Your task to perform on an android device: turn on wifi Image 0: 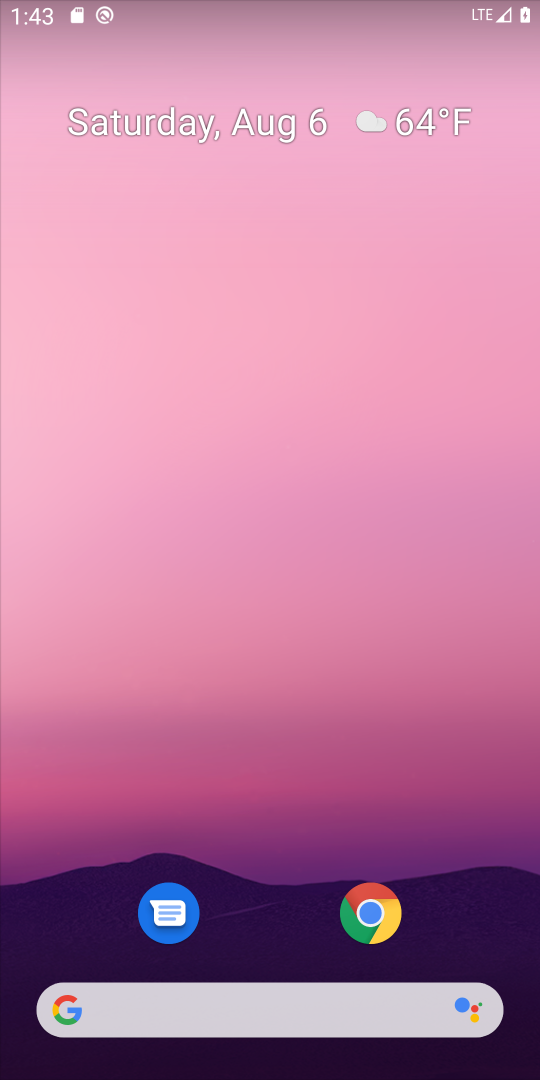
Step 0: press home button
Your task to perform on an android device: turn on wifi Image 1: 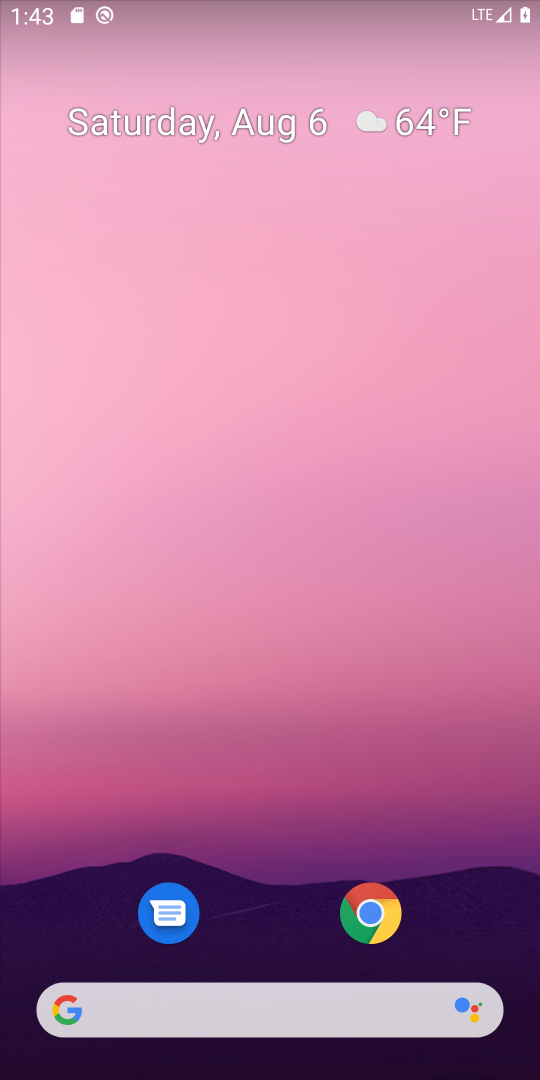
Step 1: drag from (448, 920) to (471, 277)
Your task to perform on an android device: turn on wifi Image 2: 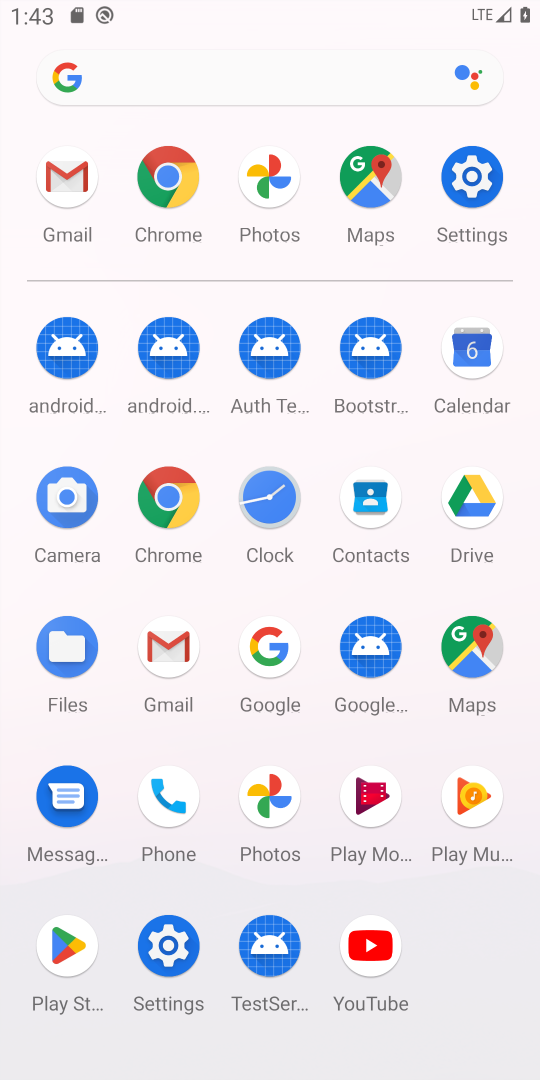
Step 2: click (474, 182)
Your task to perform on an android device: turn on wifi Image 3: 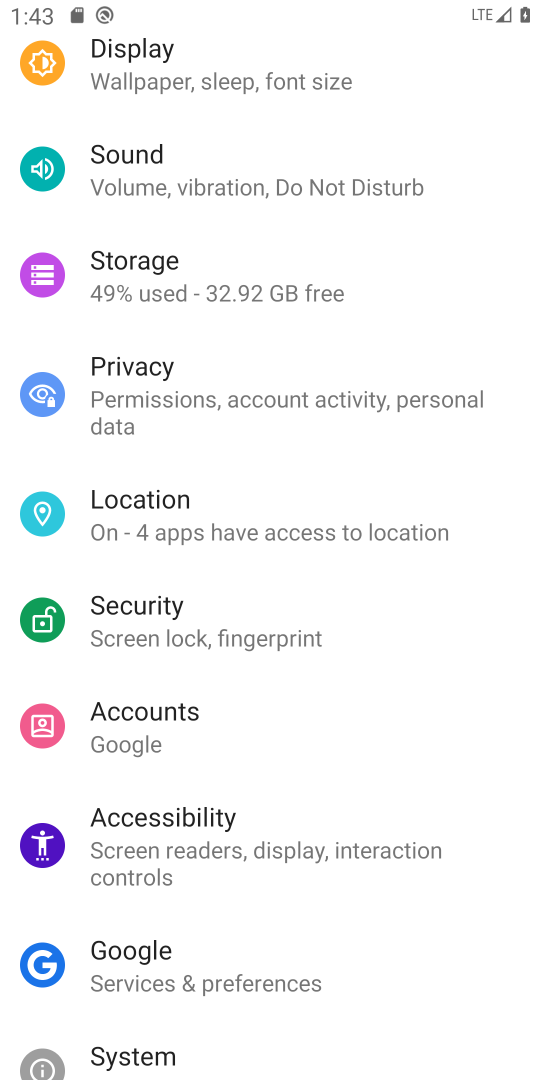
Step 3: drag from (455, 674) to (471, 530)
Your task to perform on an android device: turn on wifi Image 4: 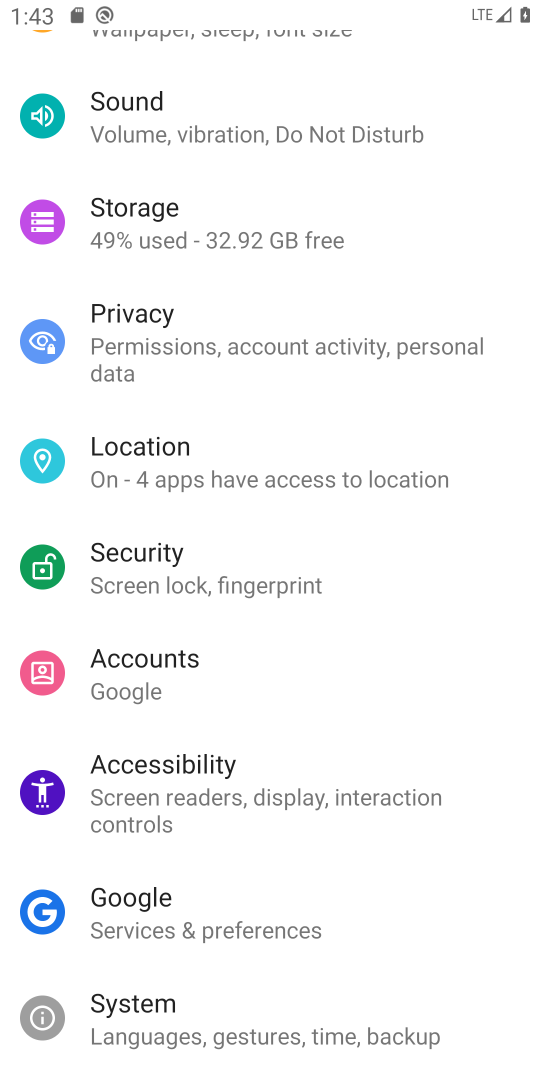
Step 4: drag from (446, 761) to (465, 561)
Your task to perform on an android device: turn on wifi Image 5: 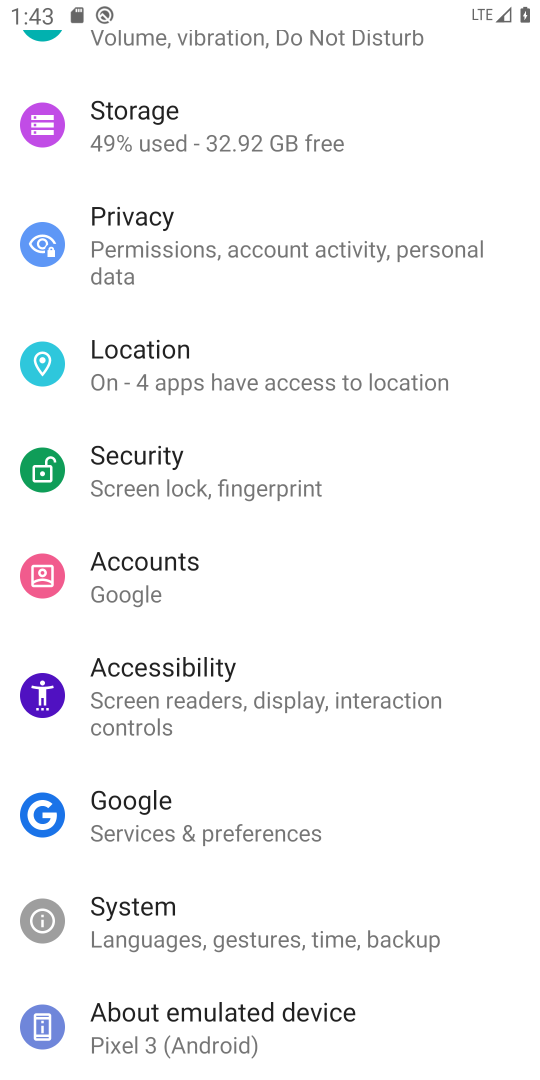
Step 5: drag from (455, 657) to (468, 540)
Your task to perform on an android device: turn on wifi Image 6: 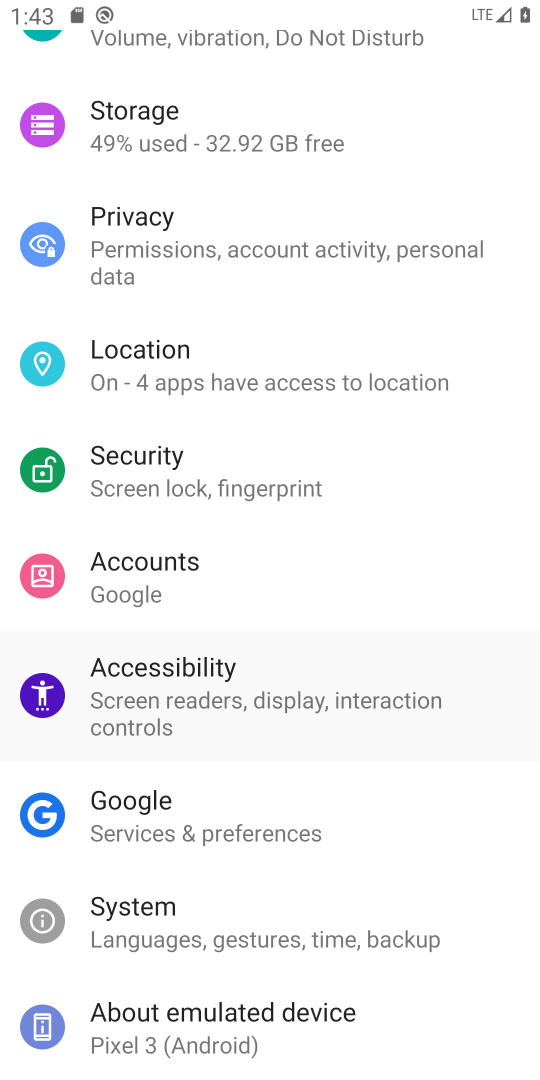
Step 6: drag from (493, 553) to (506, 733)
Your task to perform on an android device: turn on wifi Image 7: 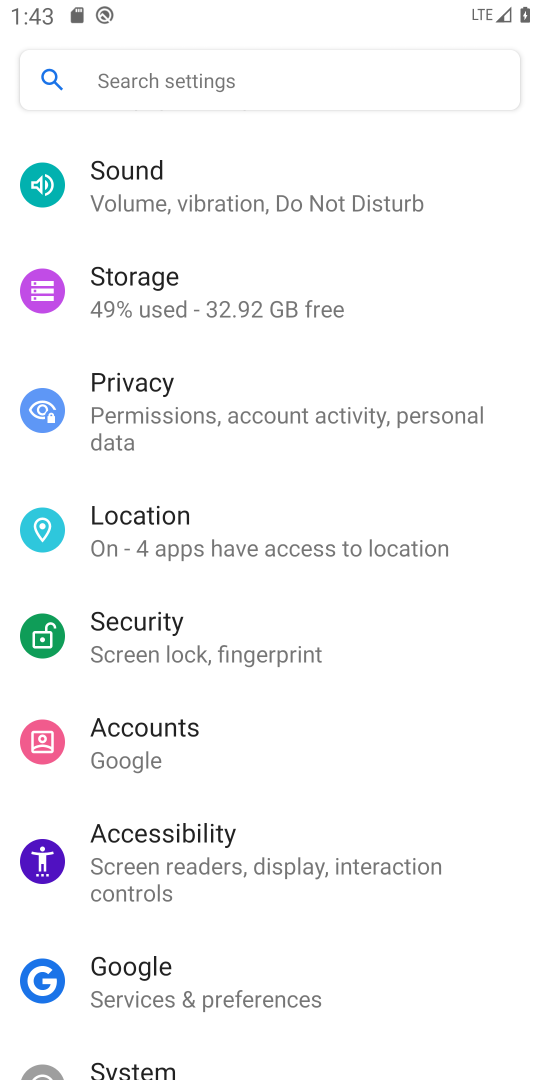
Step 7: drag from (479, 499) to (491, 664)
Your task to perform on an android device: turn on wifi Image 8: 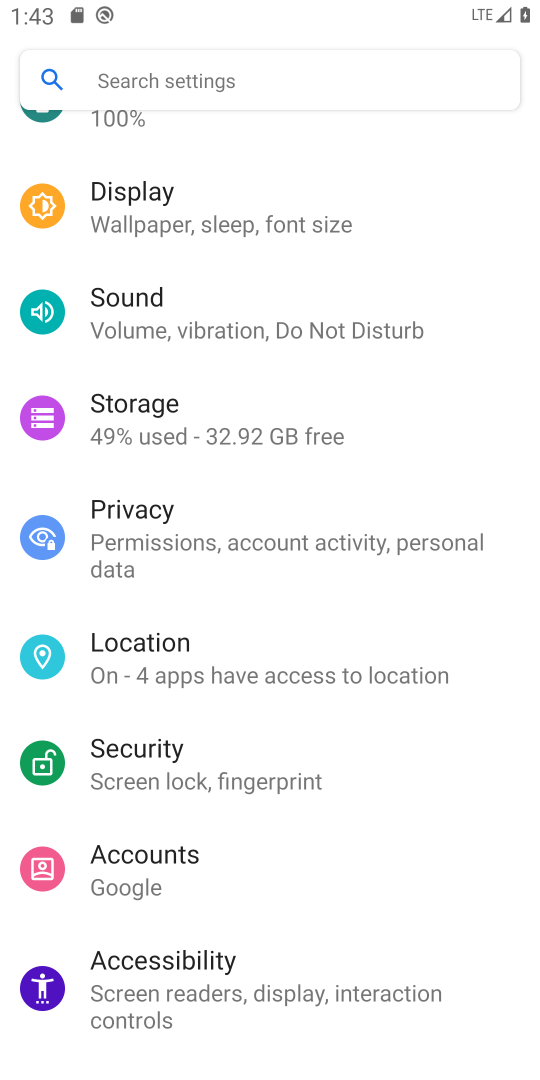
Step 8: drag from (487, 277) to (471, 572)
Your task to perform on an android device: turn on wifi Image 9: 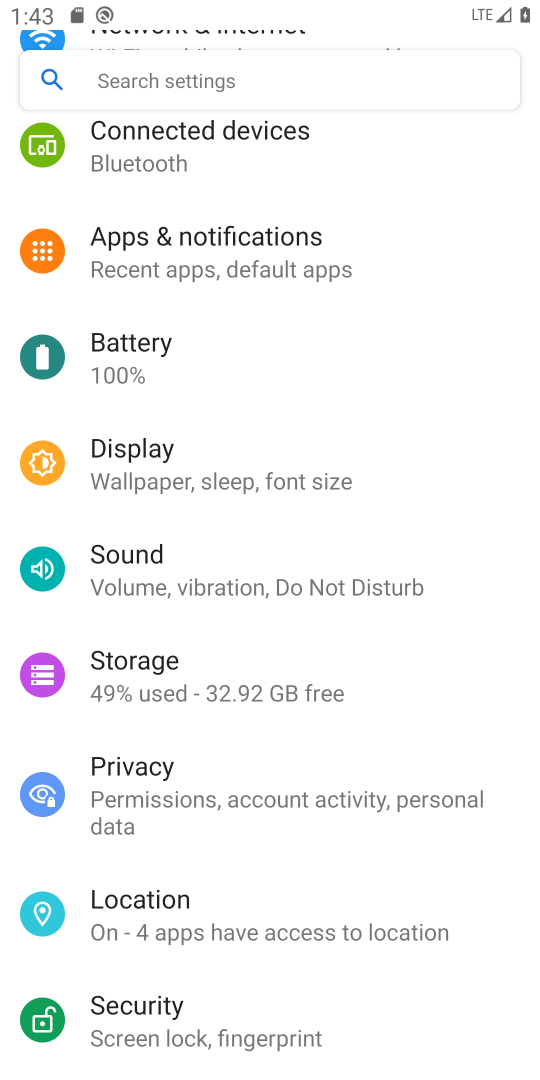
Step 9: drag from (455, 401) to (459, 611)
Your task to perform on an android device: turn on wifi Image 10: 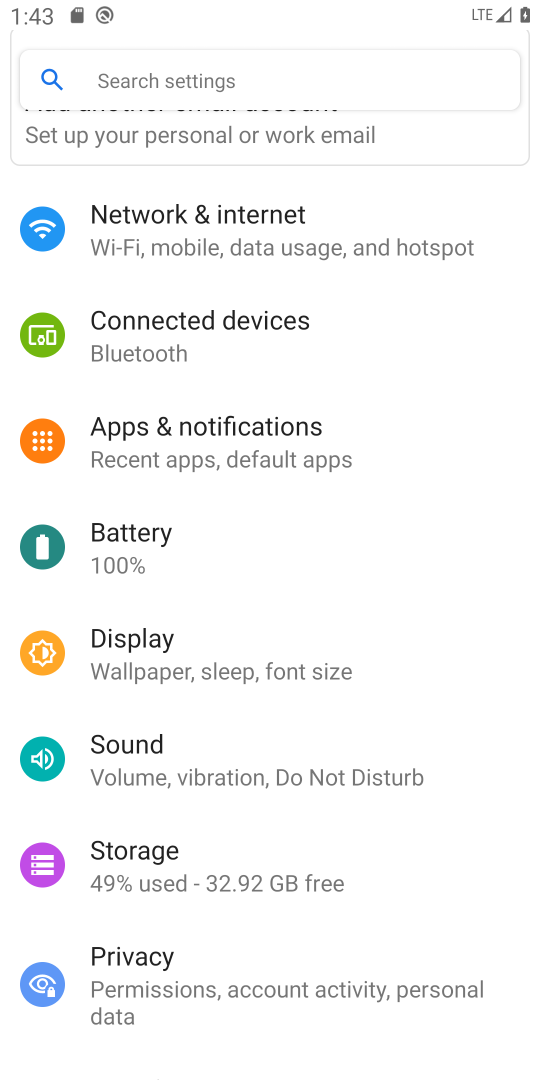
Step 10: drag from (448, 325) to (405, 678)
Your task to perform on an android device: turn on wifi Image 11: 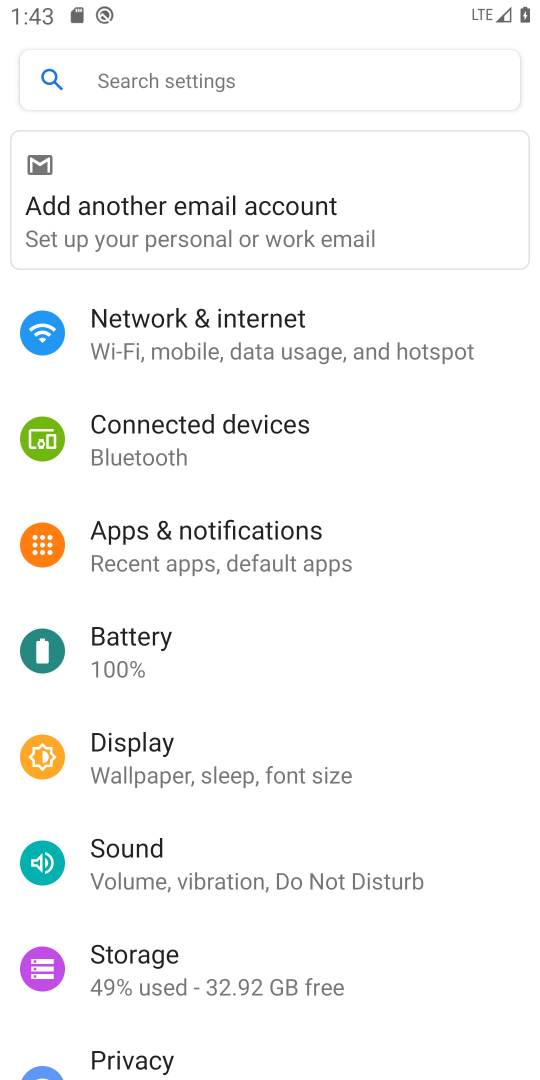
Step 11: click (387, 346)
Your task to perform on an android device: turn on wifi Image 12: 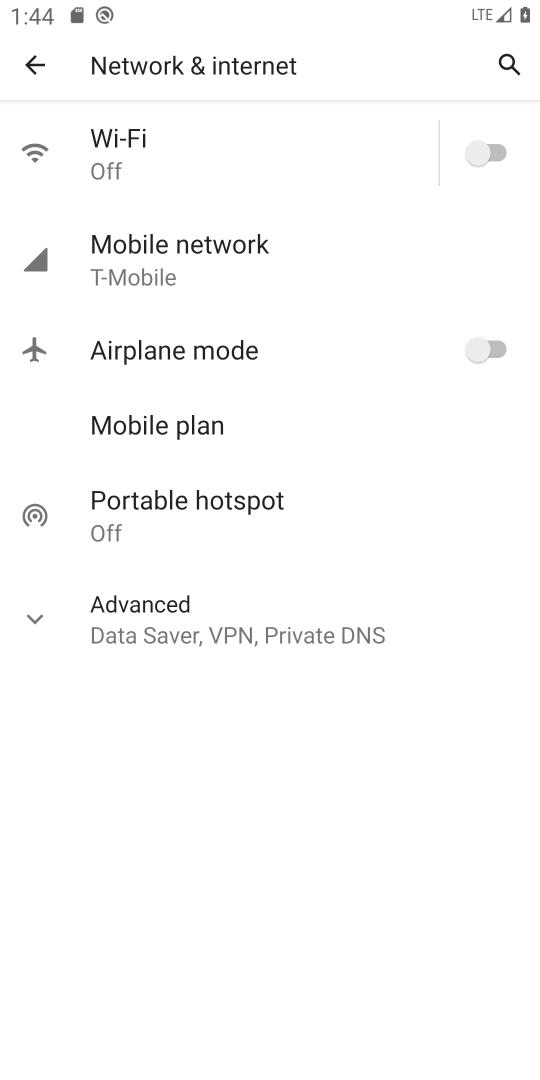
Step 12: click (481, 158)
Your task to perform on an android device: turn on wifi Image 13: 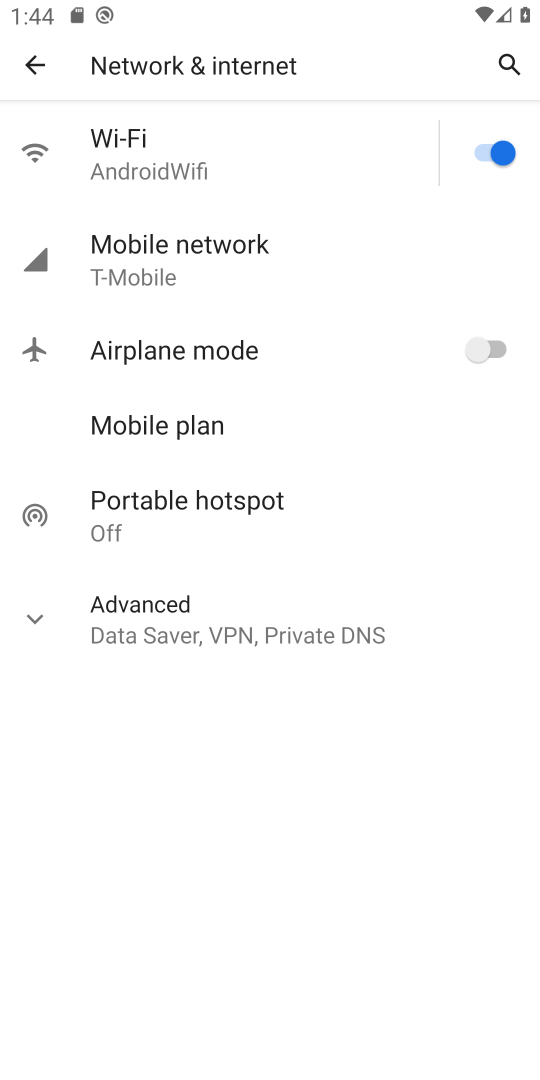
Step 13: task complete